Your task to perform on an android device: change notifications settings Image 0: 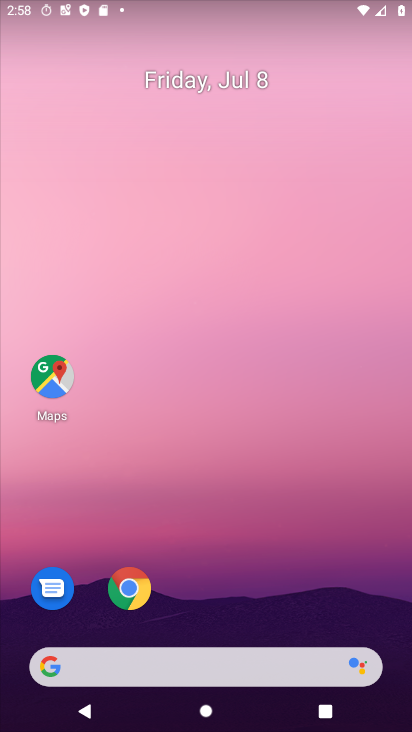
Step 0: press home button
Your task to perform on an android device: change notifications settings Image 1: 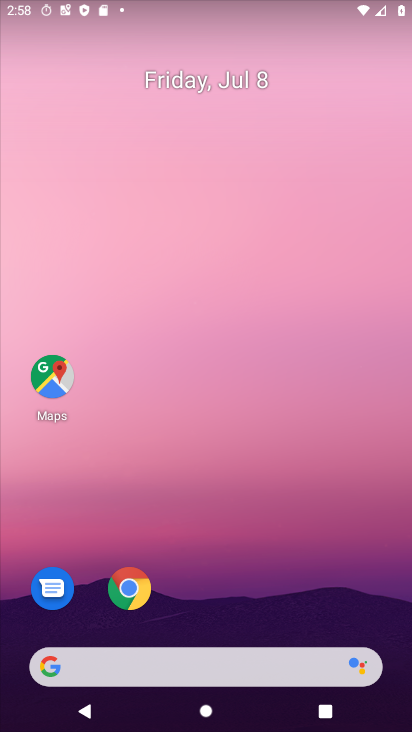
Step 1: drag from (244, 619) to (267, 68)
Your task to perform on an android device: change notifications settings Image 2: 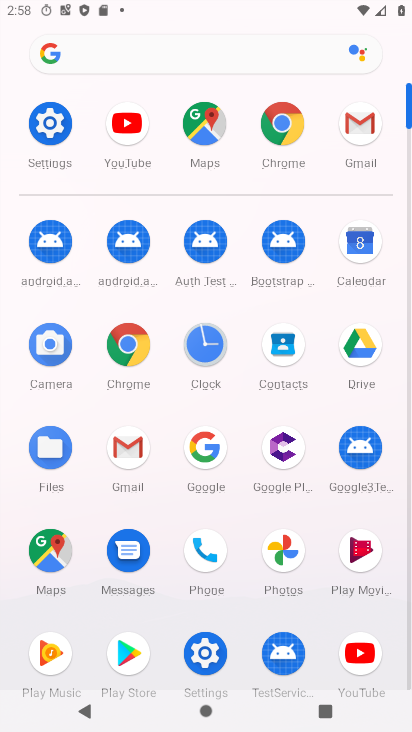
Step 2: click (59, 123)
Your task to perform on an android device: change notifications settings Image 3: 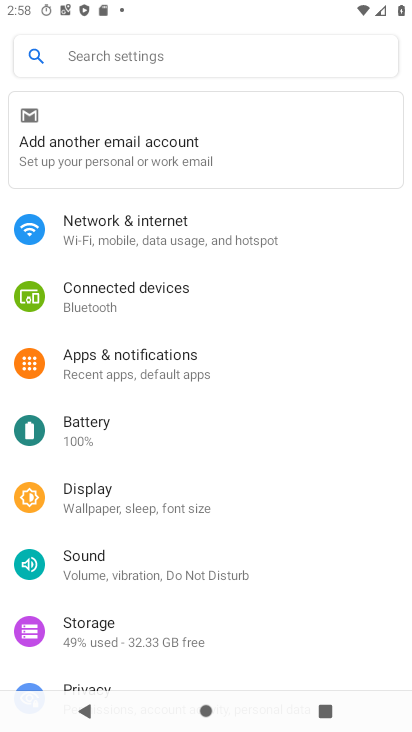
Step 3: click (169, 366)
Your task to perform on an android device: change notifications settings Image 4: 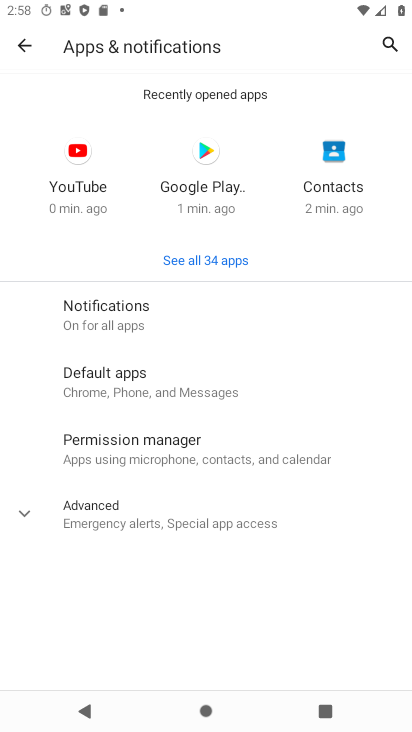
Step 4: click (106, 316)
Your task to perform on an android device: change notifications settings Image 5: 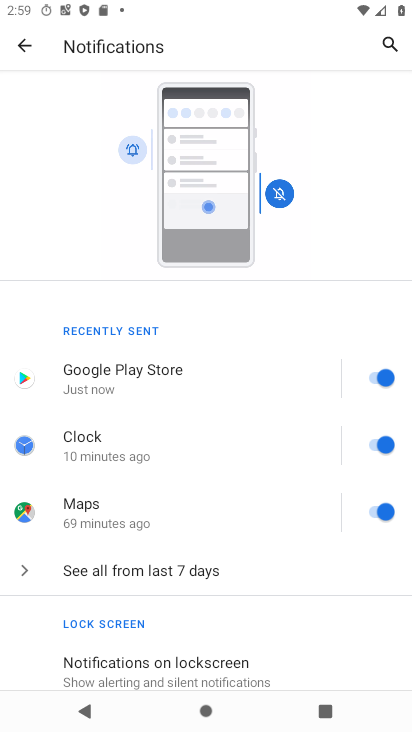
Step 5: drag from (314, 630) to (283, 396)
Your task to perform on an android device: change notifications settings Image 6: 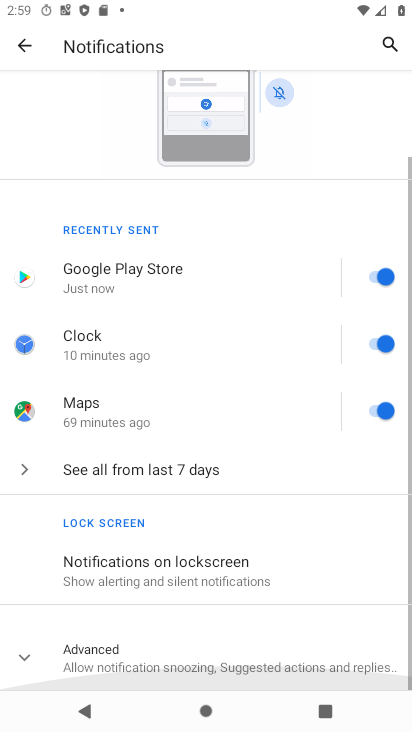
Step 6: drag from (297, 636) to (307, 239)
Your task to perform on an android device: change notifications settings Image 7: 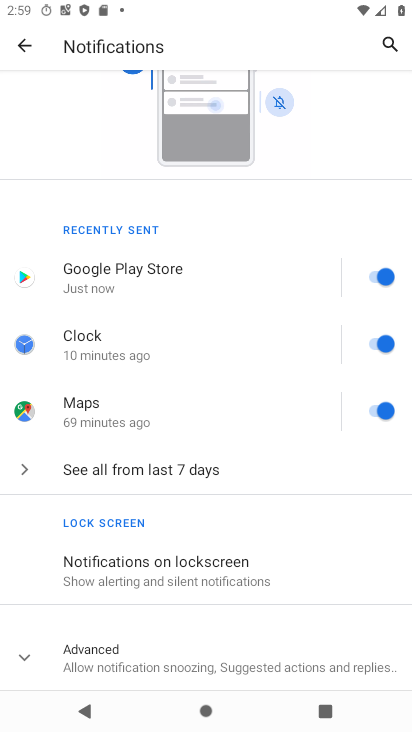
Step 7: click (103, 583)
Your task to perform on an android device: change notifications settings Image 8: 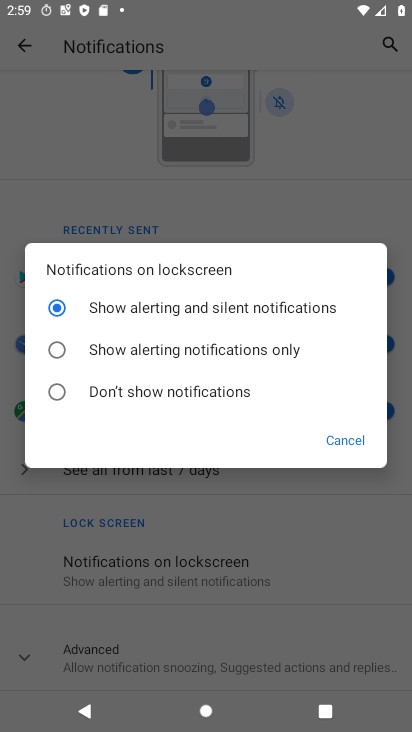
Step 8: click (56, 390)
Your task to perform on an android device: change notifications settings Image 9: 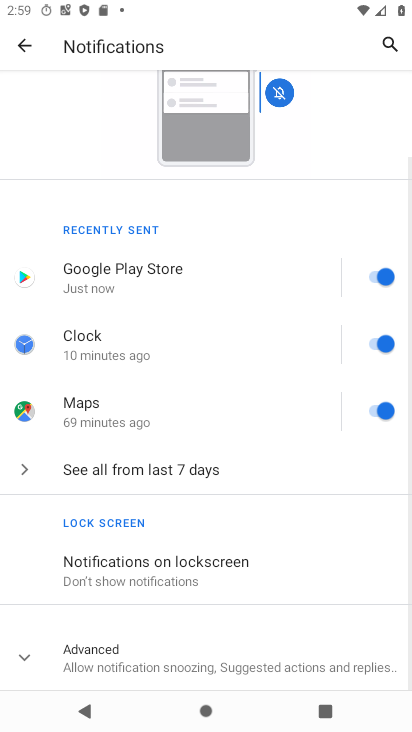
Step 9: task complete